Your task to perform on an android device: turn pop-ups on in chrome Image 0: 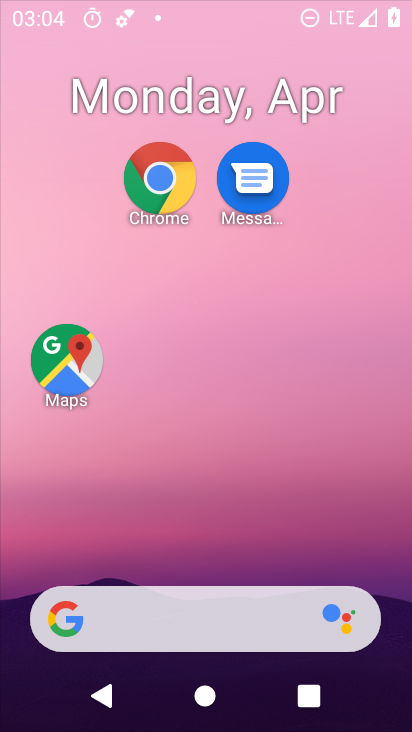
Step 0: drag from (267, 432) to (203, 1)
Your task to perform on an android device: turn pop-ups on in chrome Image 1: 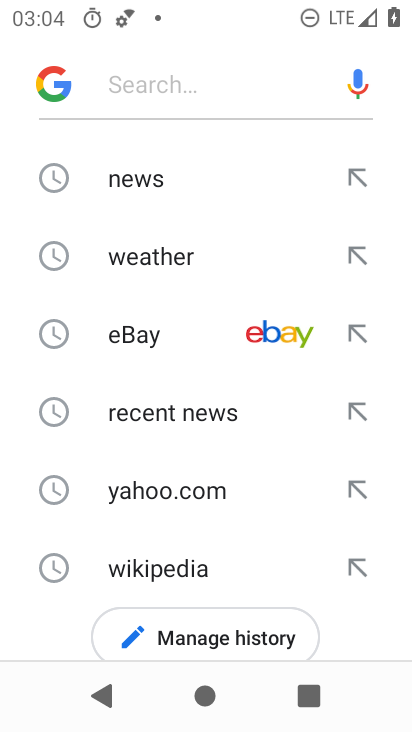
Step 1: press home button
Your task to perform on an android device: turn pop-ups on in chrome Image 2: 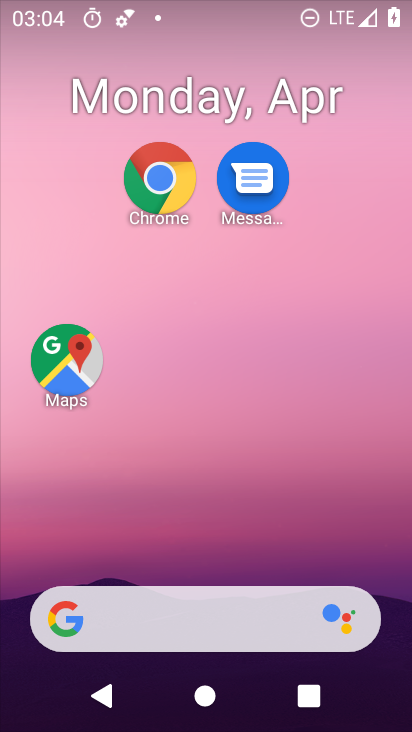
Step 2: drag from (195, 559) to (260, 0)
Your task to perform on an android device: turn pop-ups on in chrome Image 3: 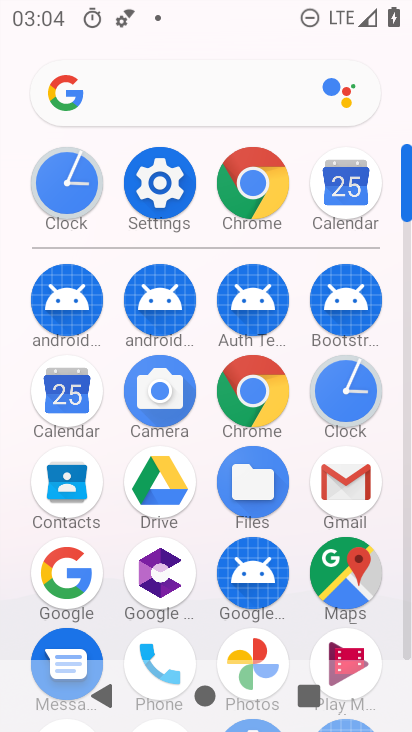
Step 3: click (264, 406)
Your task to perform on an android device: turn pop-ups on in chrome Image 4: 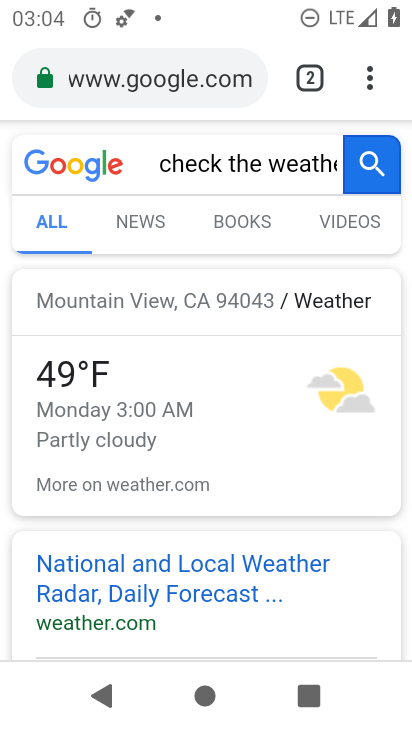
Step 4: drag from (362, 79) to (171, 556)
Your task to perform on an android device: turn pop-ups on in chrome Image 5: 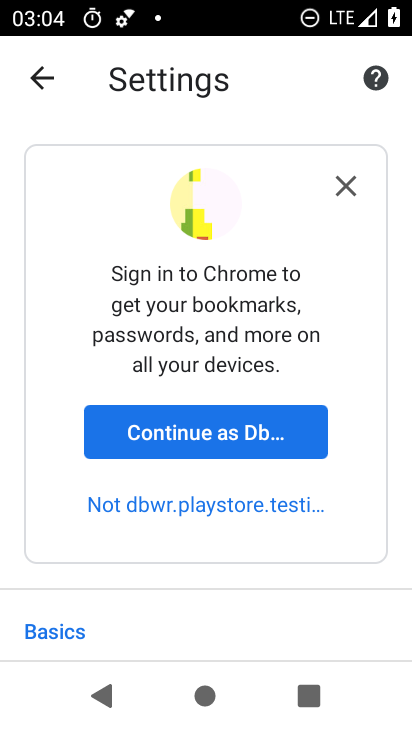
Step 5: drag from (272, 595) to (295, 69)
Your task to perform on an android device: turn pop-ups on in chrome Image 6: 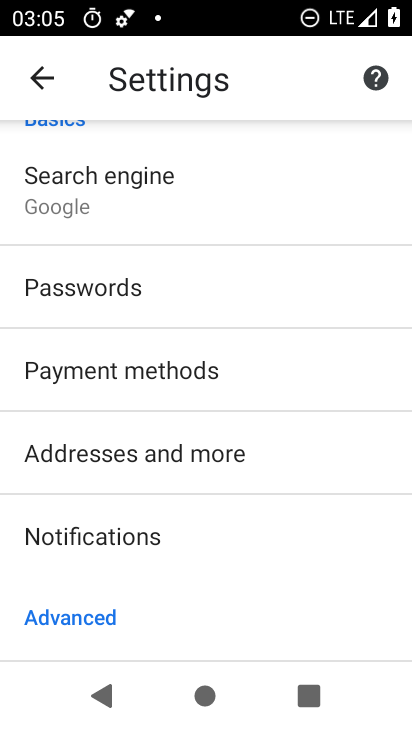
Step 6: drag from (215, 611) to (248, 151)
Your task to perform on an android device: turn pop-ups on in chrome Image 7: 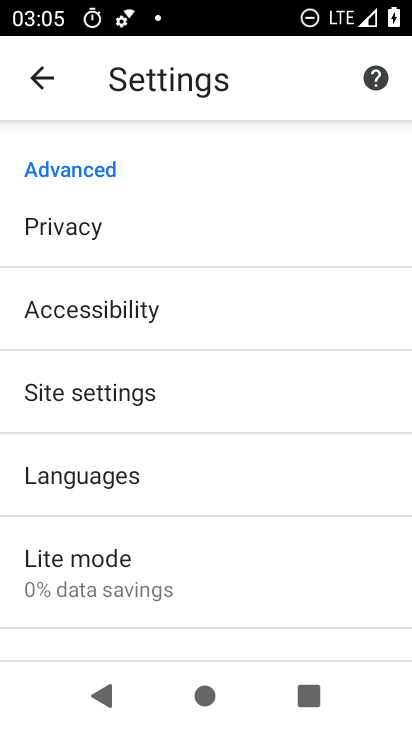
Step 7: drag from (234, 610) to (247, 132)
Your task to perform on an android device: turn pop-ups on in chrome Image 8: 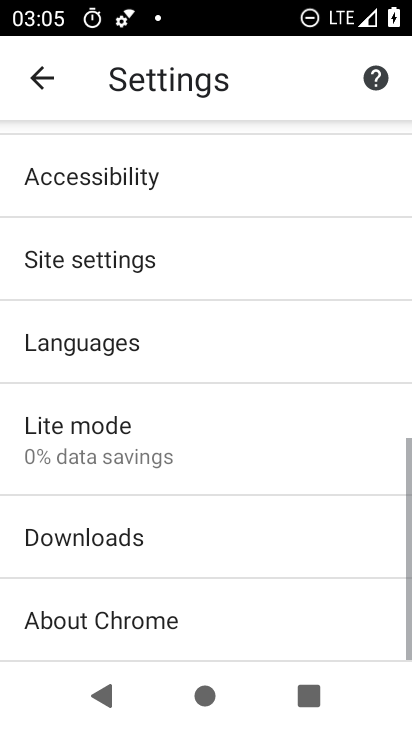
Step 8: drag from (171, 235) to (184, 586)
Your task to perform on an android device: turn pop-ups on in chrome Image 9: 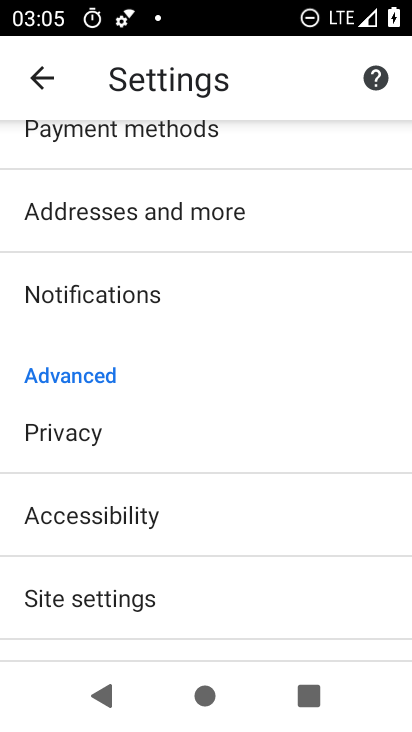
Step 9: drag from (253, 659) to (298, 200)
Your task to perform on an android device: turn pop-ups on in chrome Image 10: 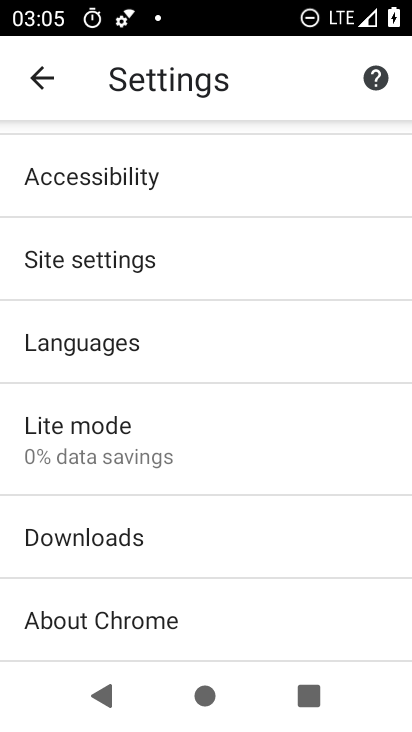
Step 10: click (159, 250)
Your task to perform on an android device: turn pop-ups on in chrome Image 11: 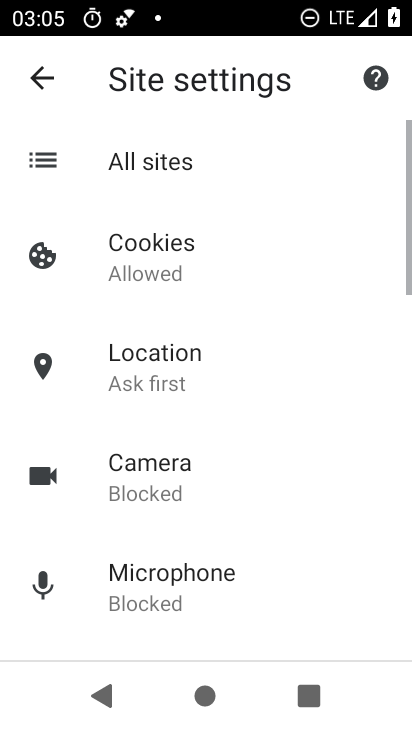
Step 11: drag from (245, 612) to (286, 86)
Your task to perform on an android device: turn pop-ups on in chrome Image 12: 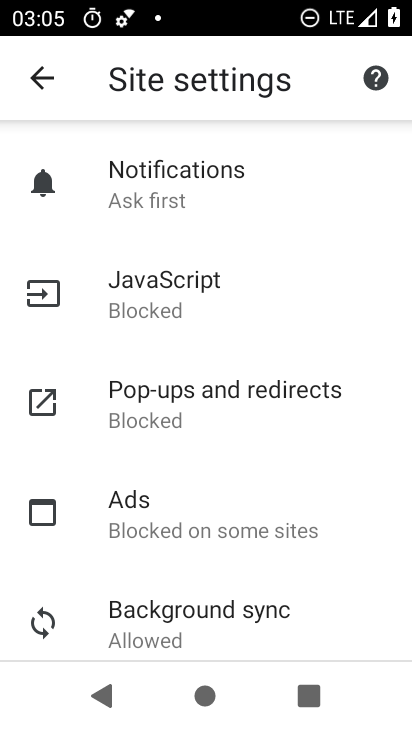
Step 12: click (244, 398)
Your task to perform on an android device: turn pop-ups on in chrome Image 13: 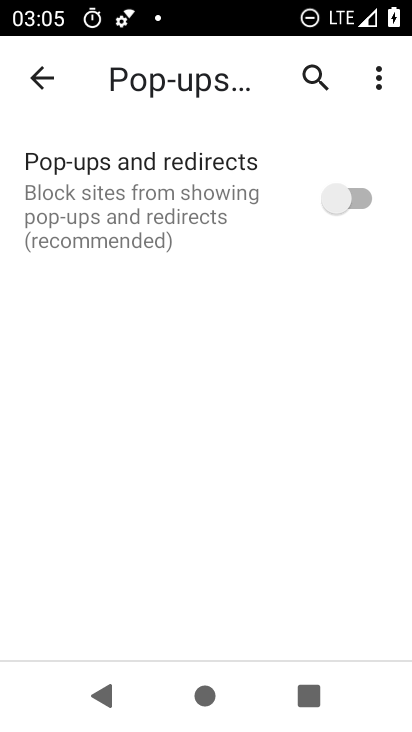
Step 13: click (358, 197)
Your task to perform on an android device: turn pop-ups on in chrome Image 14: 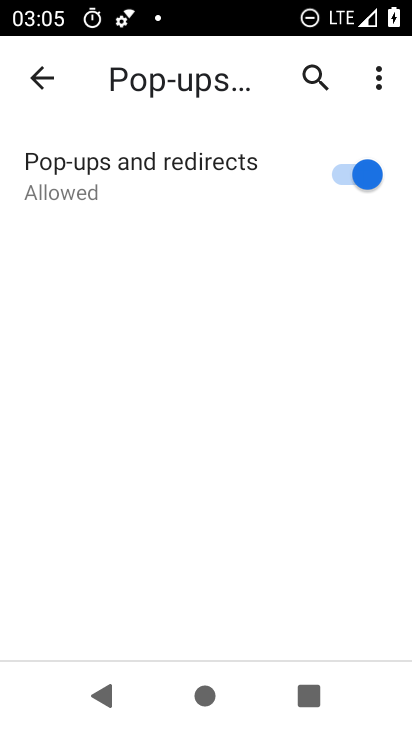
Step 14: task complete